Your task to perform on an android device: Open internet settings Image 0: 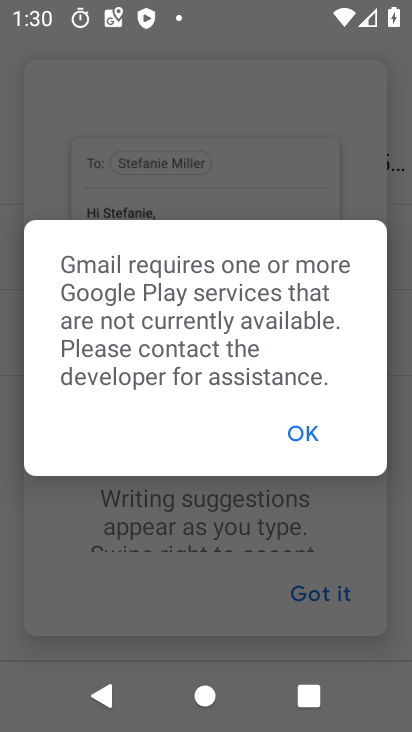
Step 0: press home button
Your task to perform on an android device: Open internet settings Image 1: 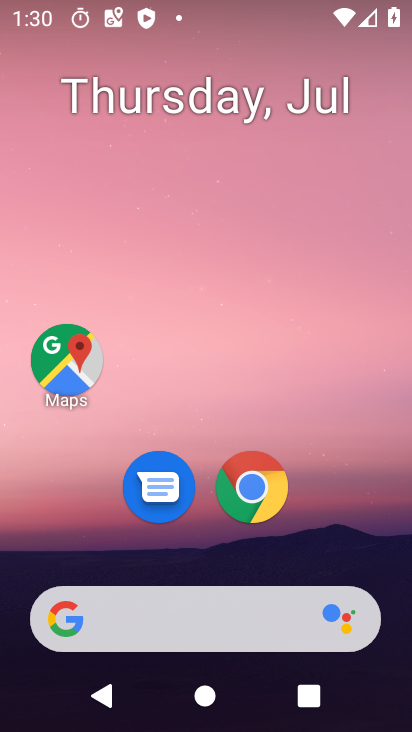
Step 1: drag from (241, 685) to (287, 279)
Your task to perform on an android device: Open internet settings Image 2: 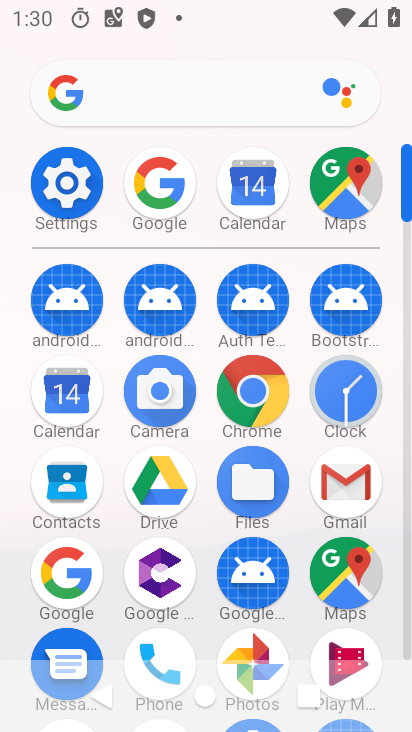
Step 2: click (73, 192)
Your task to perform on an android device: Open internet settings Image 3: 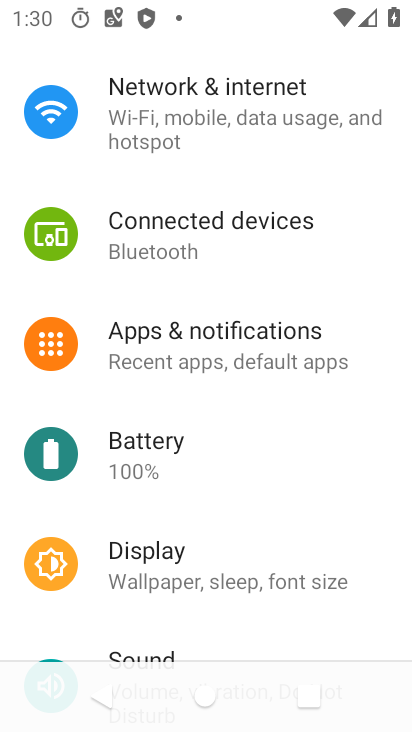
Step 3: drag from (207, 203) to (245, 620)
Your task to perform on an android device: Open internet settings Image 4: 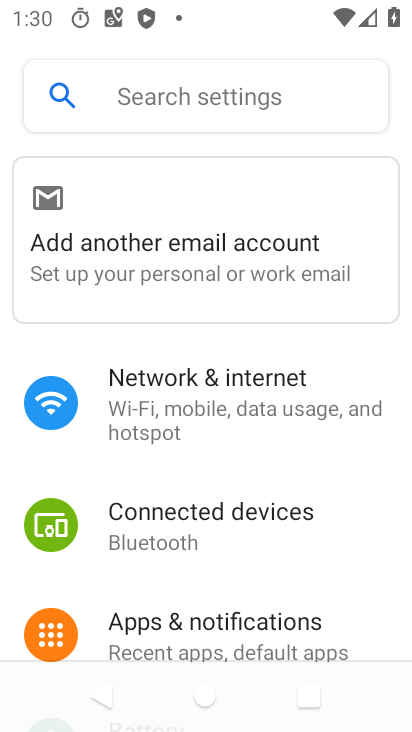
Step 4: click (187, 405)
Your task to perform on an android device: Open internet settings Image 5: 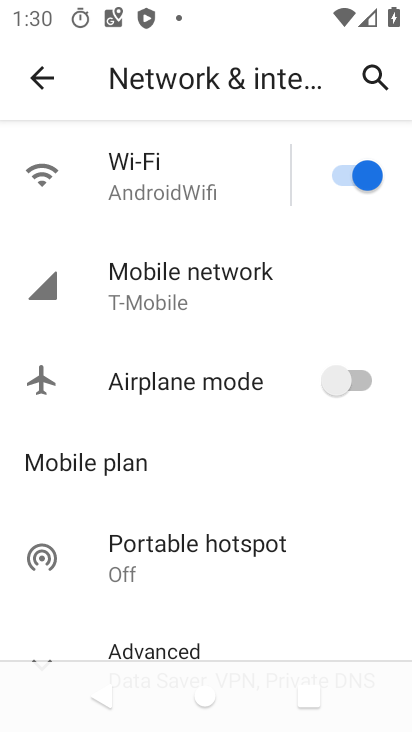
Step 5: click (182, 286)
Your task to perform on an android device: Open internet settings Image 6: 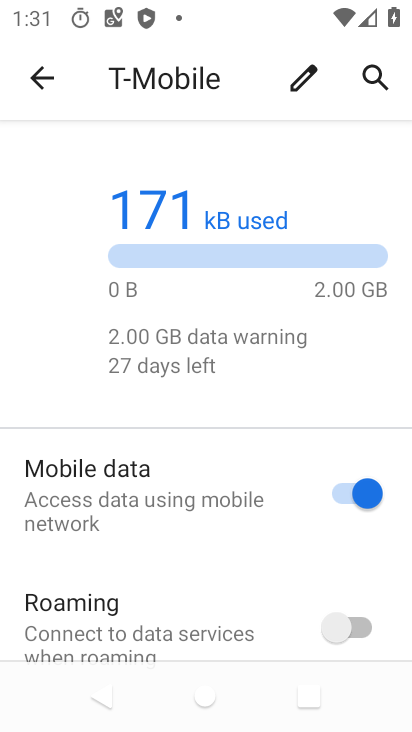
Step 6: task complete